Your task to perform on an android device: What's the latest news in tech? Image 0: 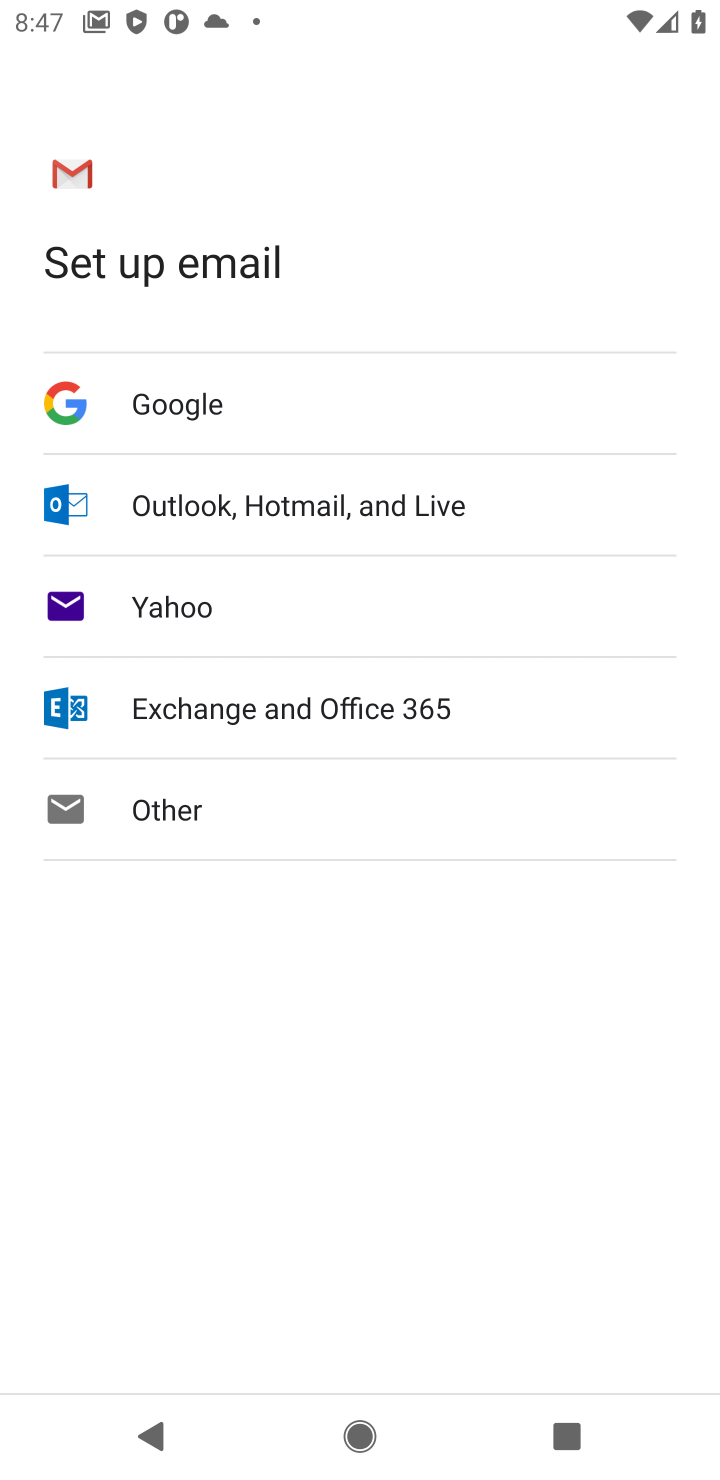
Step 0: press home button
Your task to perform on an android device: What's the latest news in tech? Image 1: 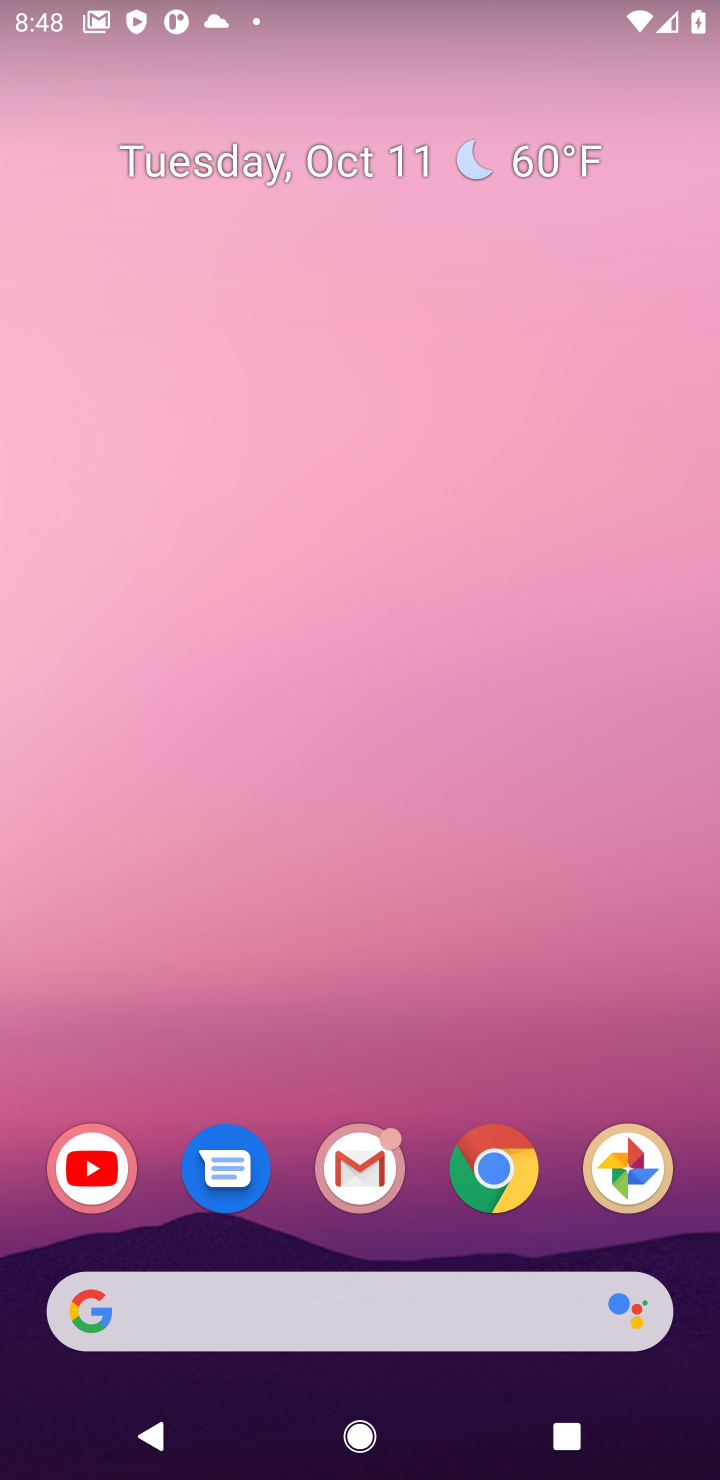
Step 1: click (488, 1180)
Your task to perform on an android device: What's the latest news in tech? Image 2: 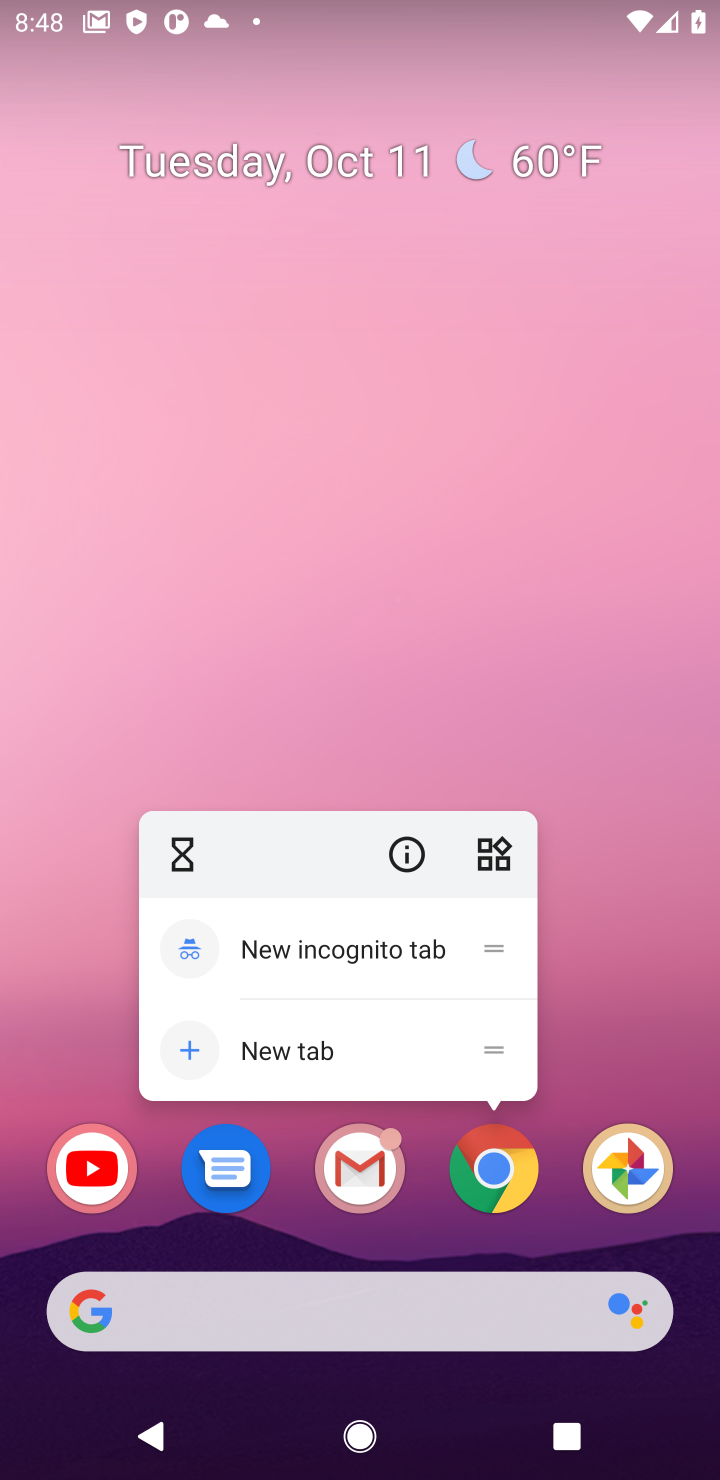
Step 2: press back button
Your task to perform on an android device: What's the latest news in tech? Image 3: 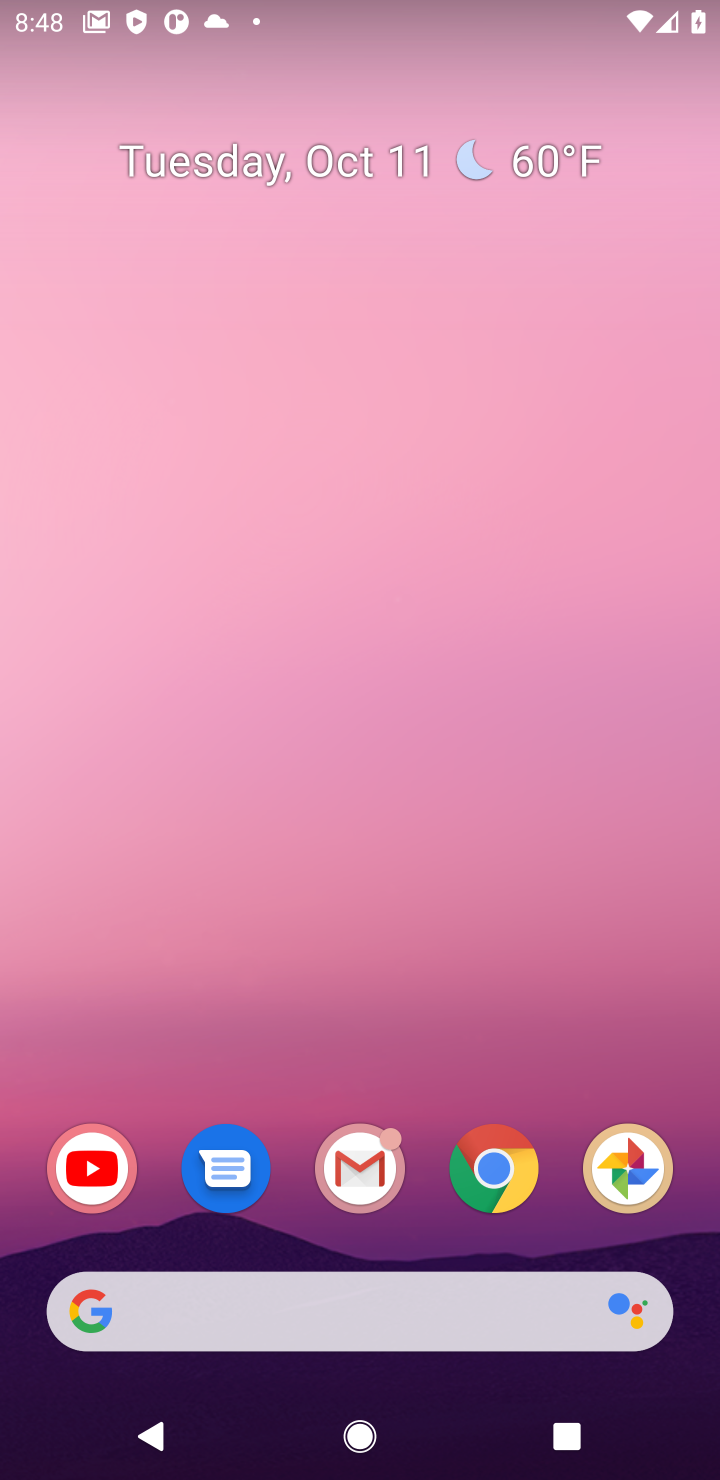
Step 3: press home button
Your task to perform on an android device: What's the latest news in tech? Image 4: 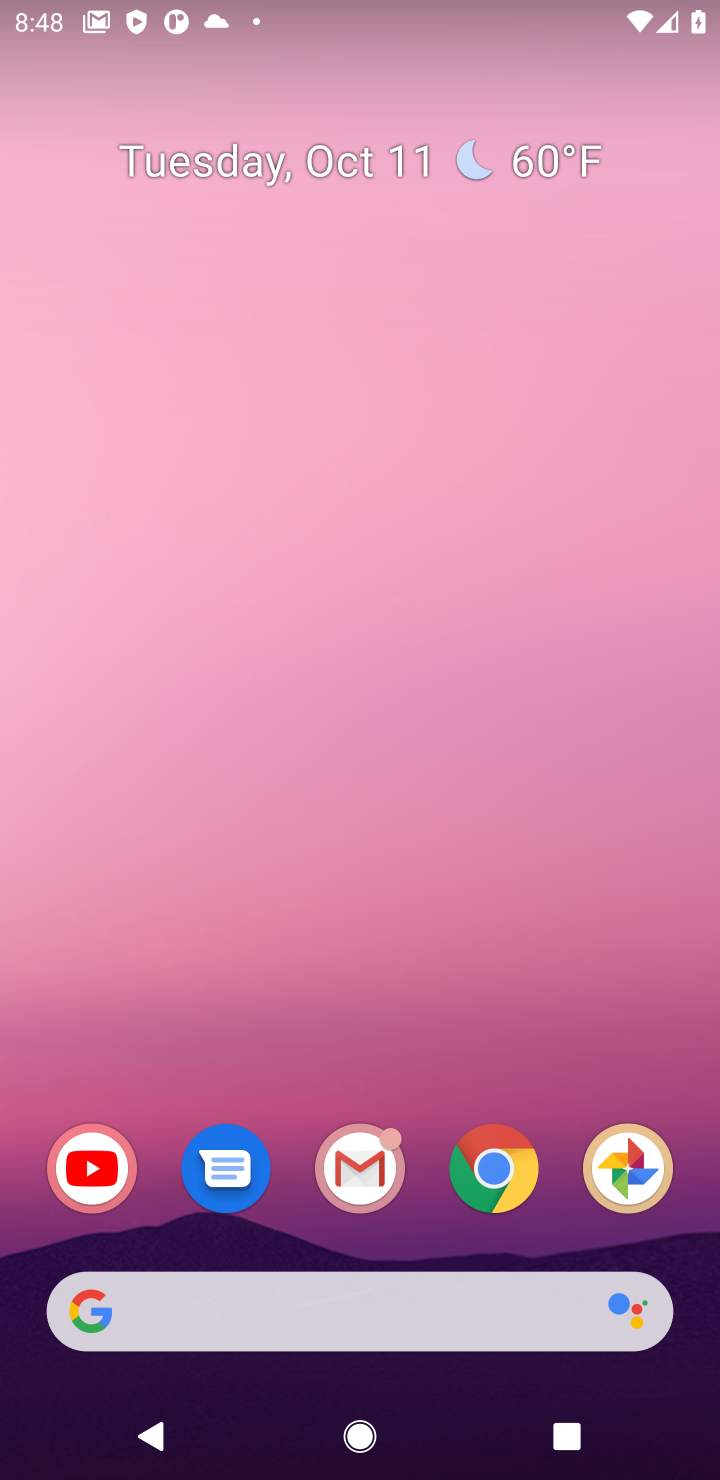
Step 4: click (472, 1195)
Your task to perform on an android device: What's the latest news in tech? Image 5: 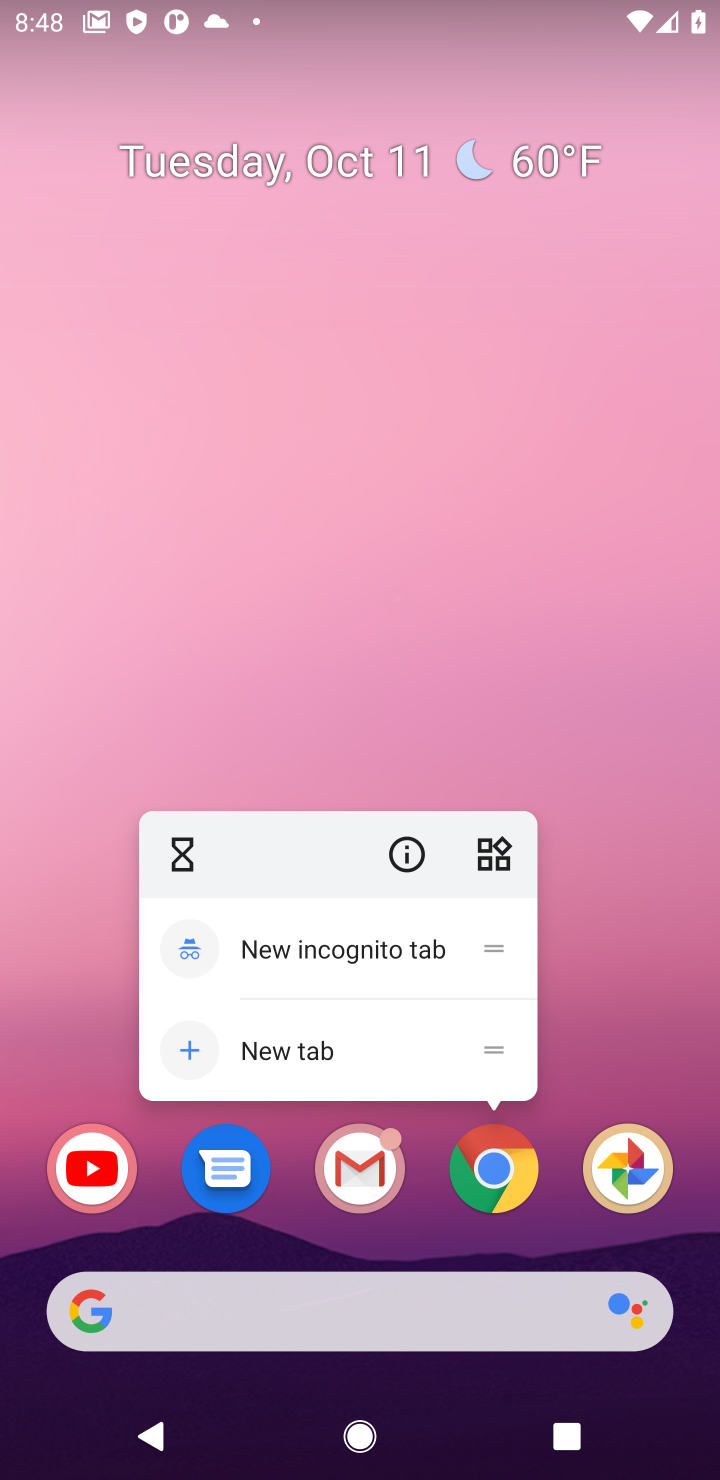
Step 5: click (519, 1183)
Your task to perform on an android device: What's the latest news in tech? Image 6: 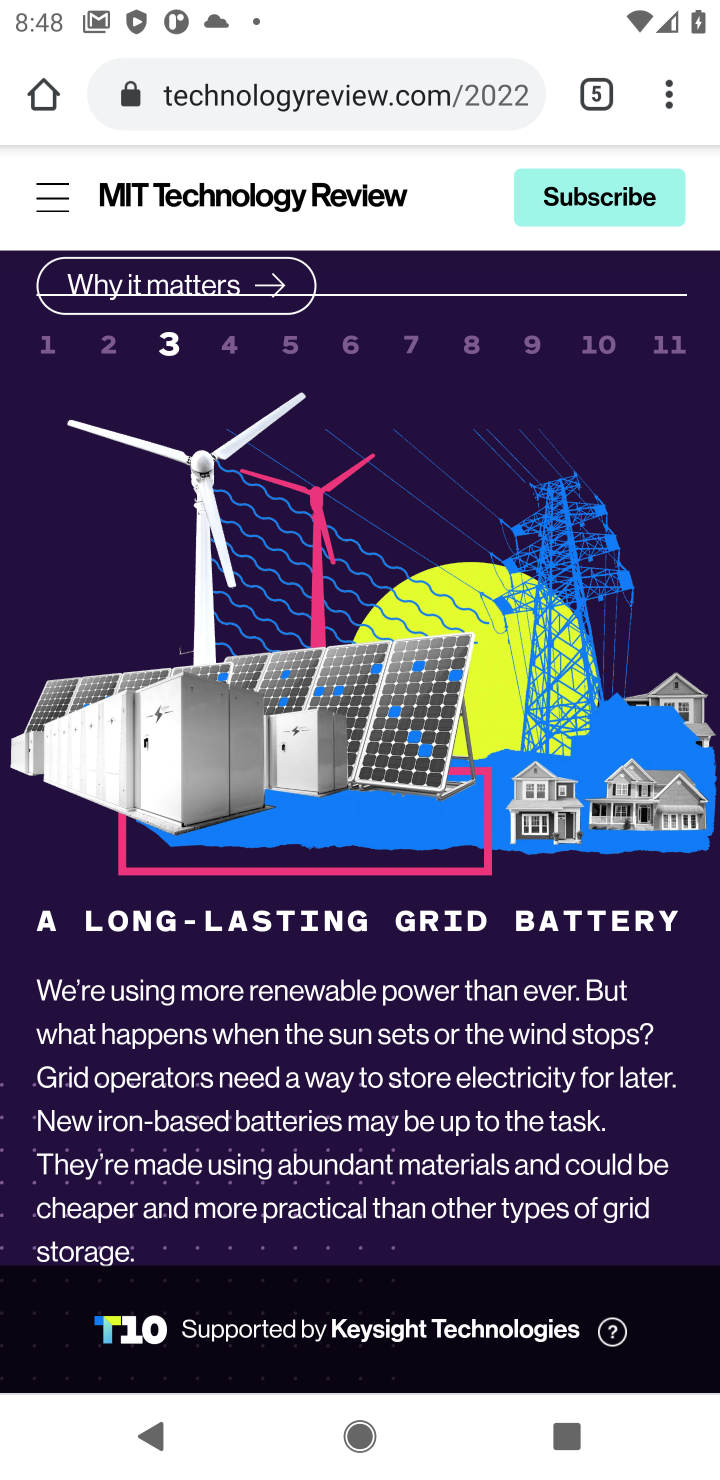
Step 6: click (415, 86)
Your task to perform on an android device: What's the latest news in tech? Image 7: 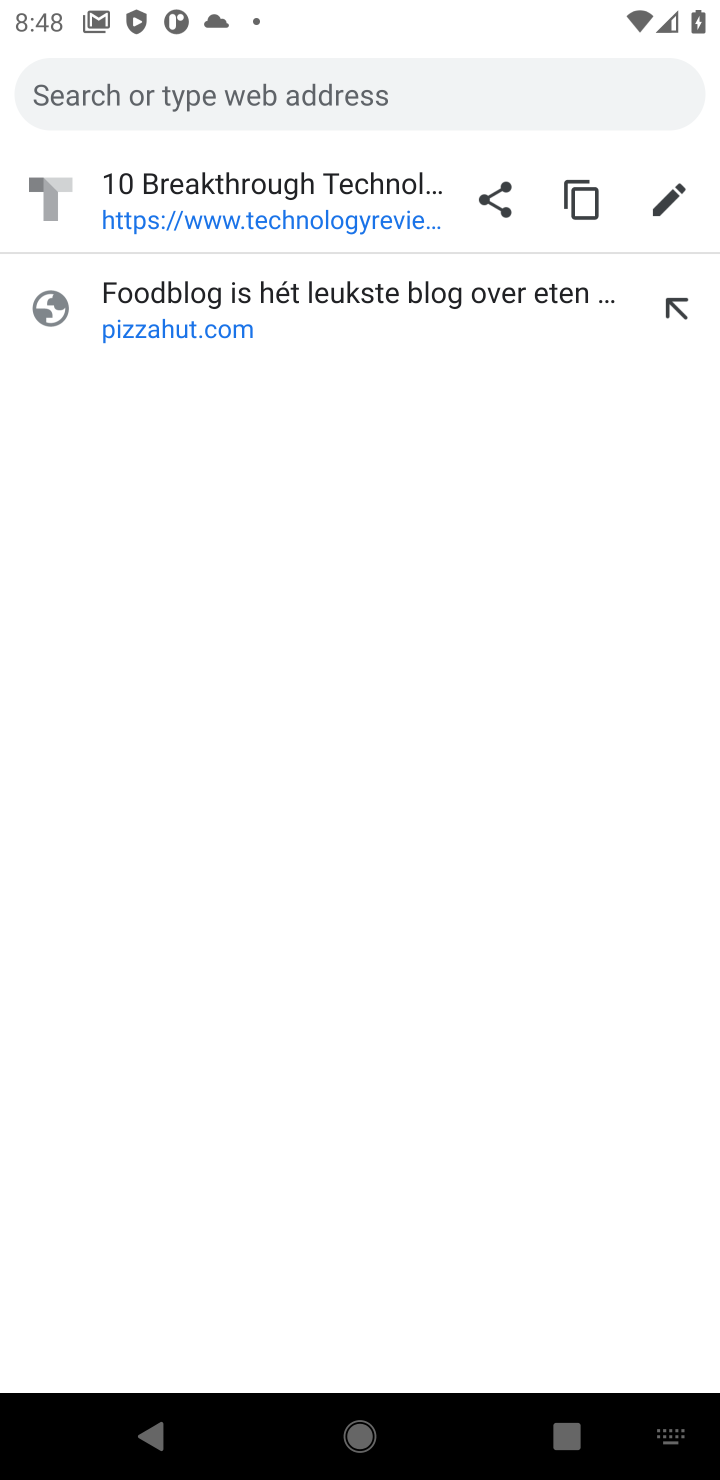
Step 7: type "latest news in tech"
Your task to perform on an android device: What's the latest news in tech? Image 8: 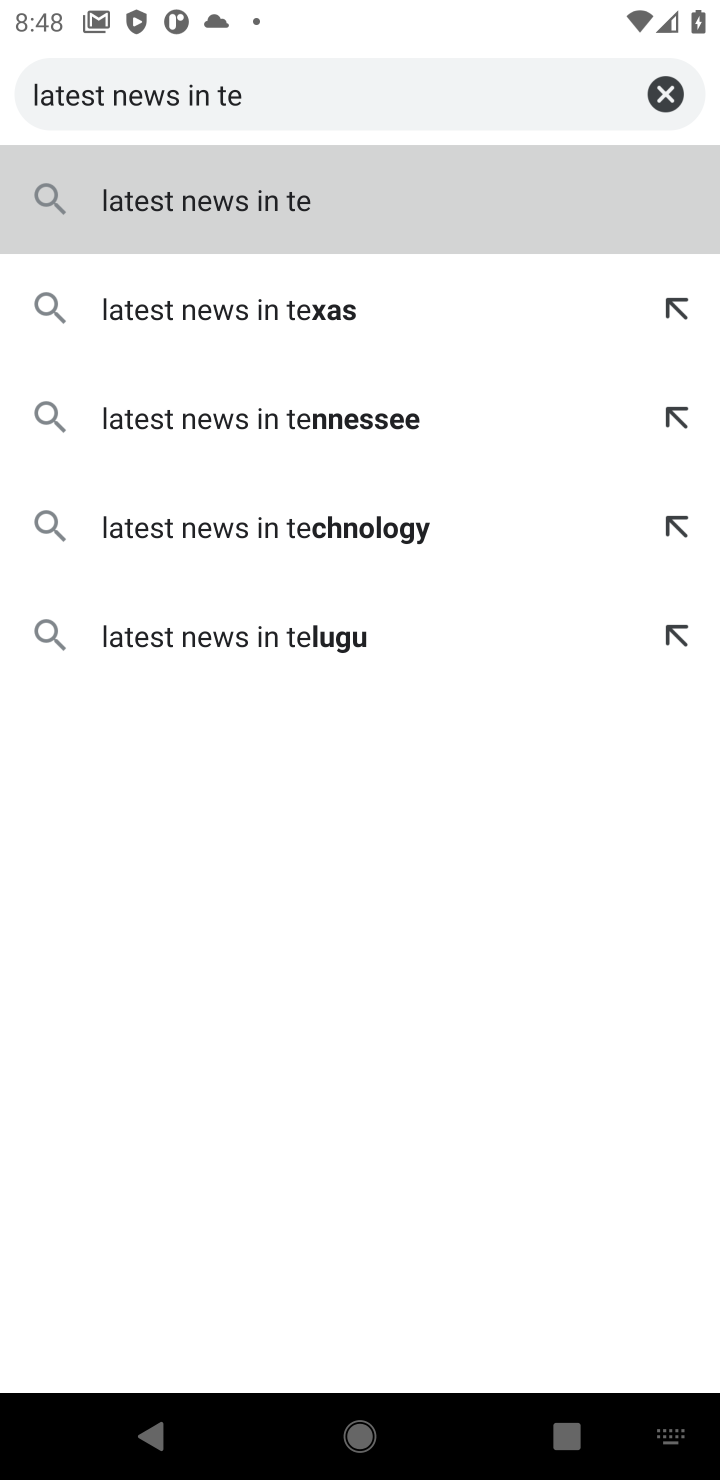
Step 8: type ""
Your task to perform on an android device: What's the latest news in tech? Image 9: 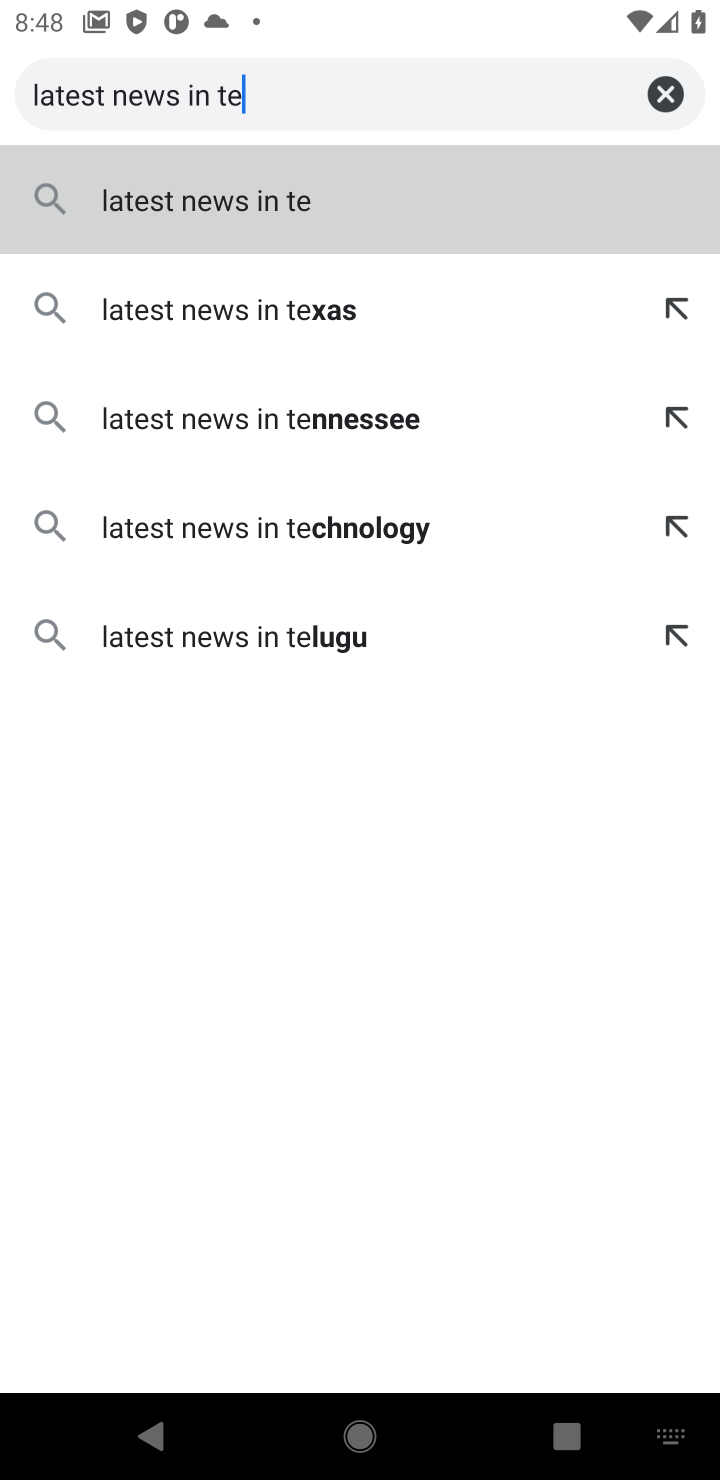
Step 9: click (336, 524)
Your task to perform on an android device: What's the latest news in tech? Image 10: 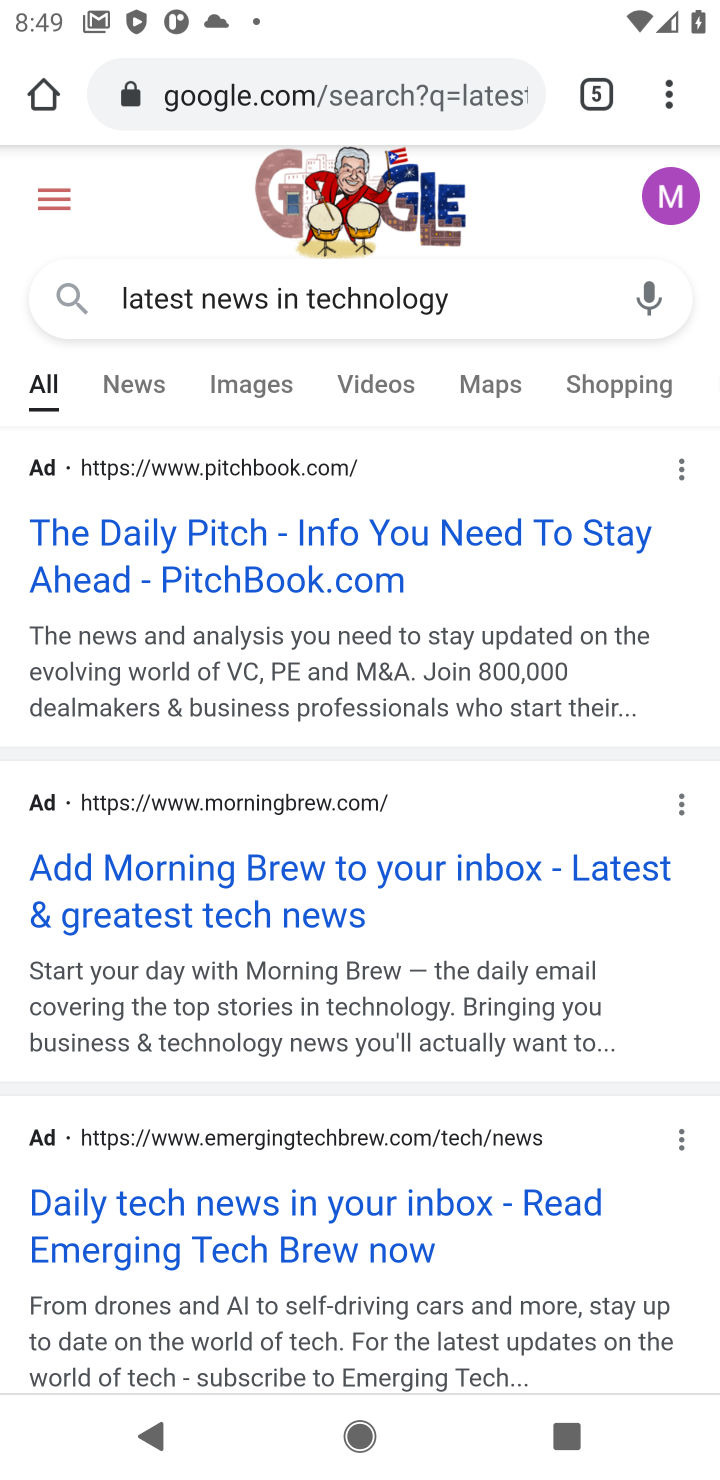
Step 10: drag from (278, 1023) to (450, 279)
Your task to perform on an android device: What's the latest news in tech? Image 11: 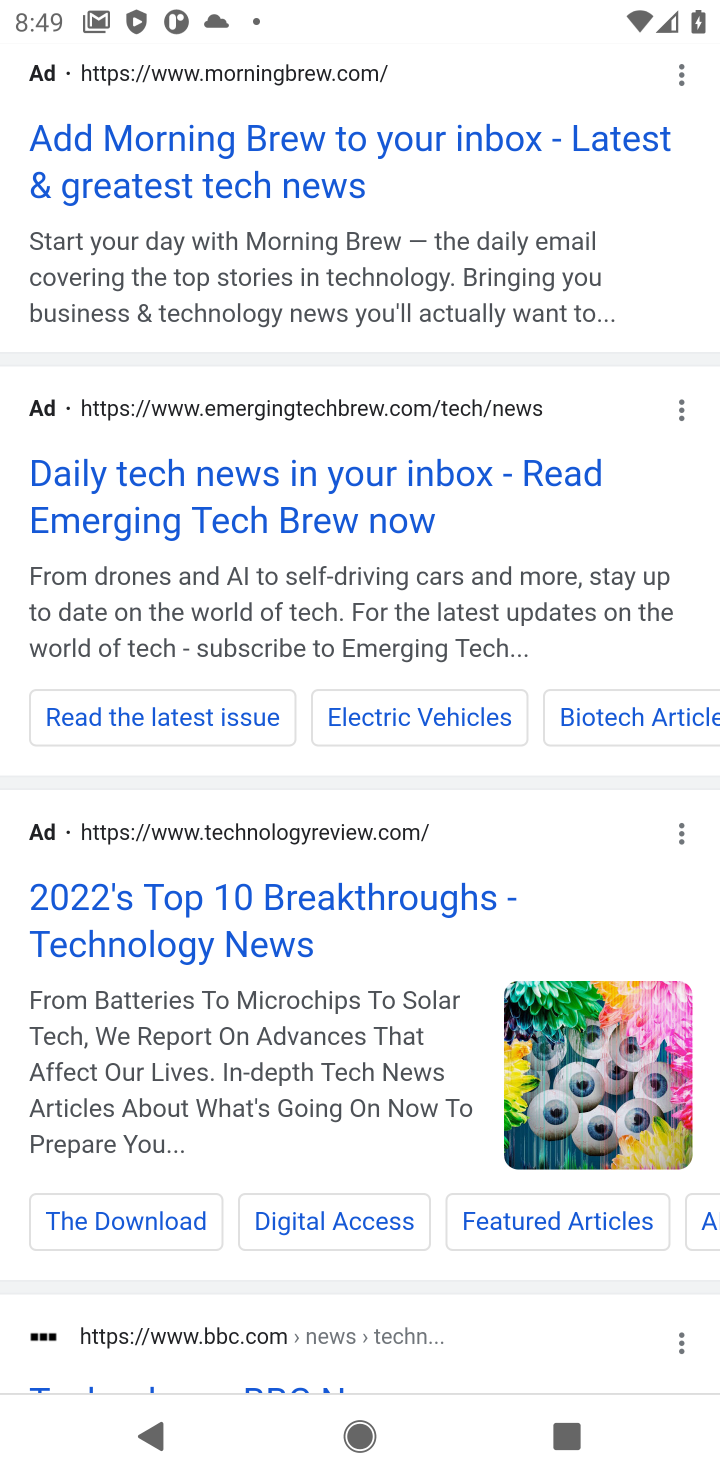
Step 11: click (315, 895)
Your task to perform on an android device: What's the latest news in tech? Image 12: 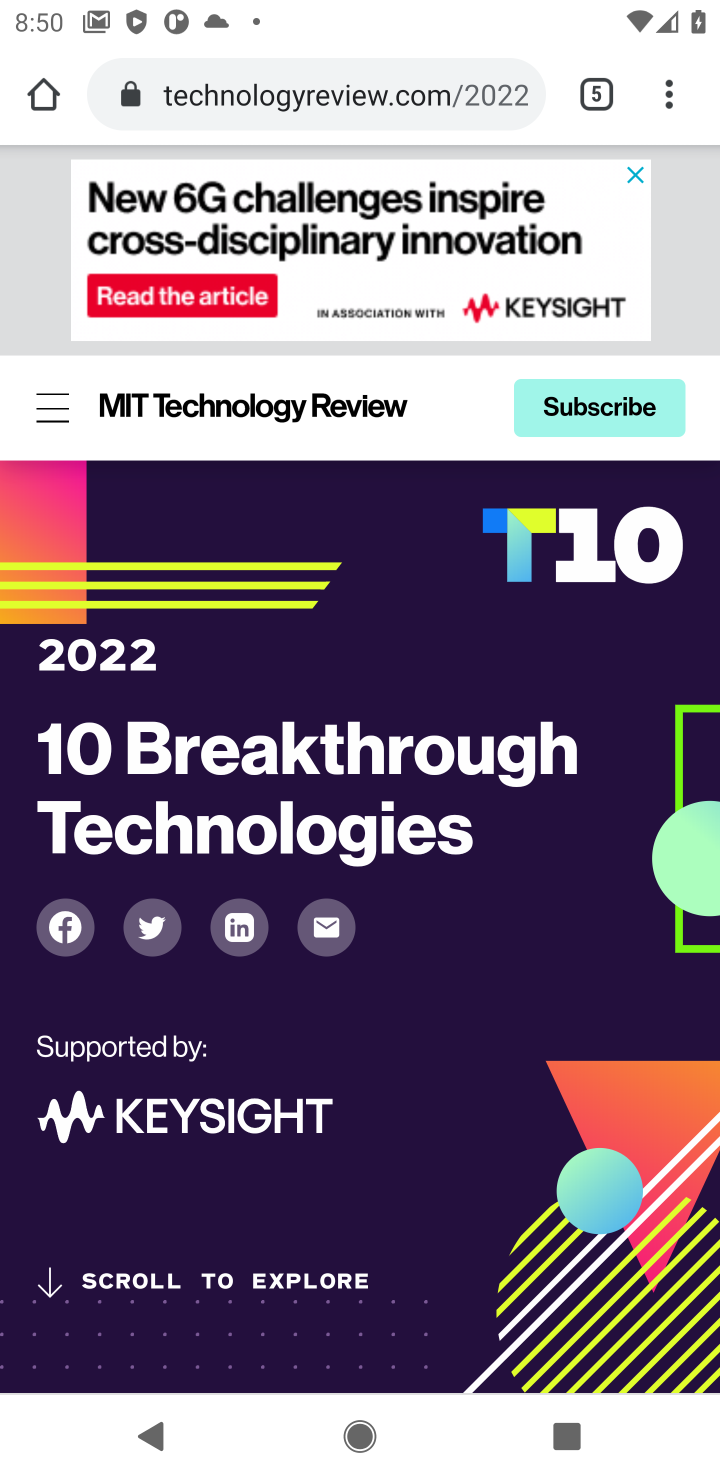
Step 12: task complete